Your task to perform on an android device: Open settings Image 0: 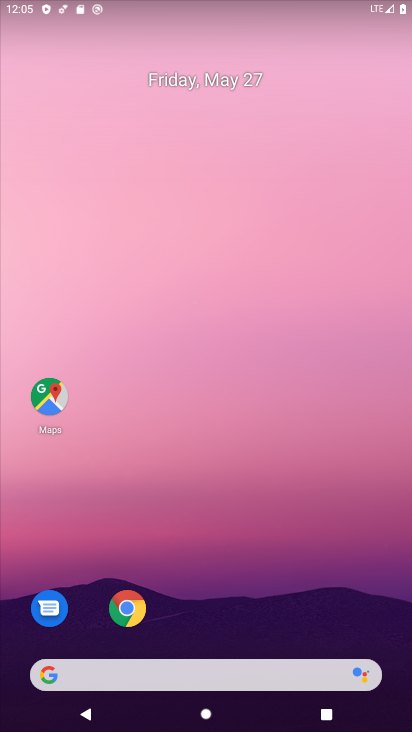
Step 0: press home button
Your task to perform on an android device: Open settings Image 1: 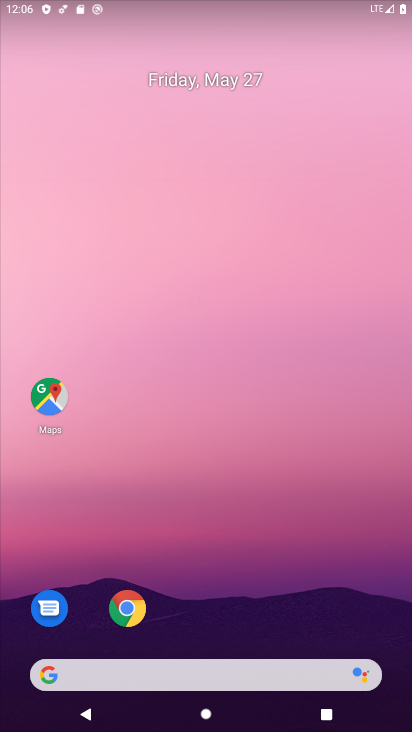
Step 1: drag from (158, 661) to (255, 160)
Your task to perform on an android device: Open settings Image 2: 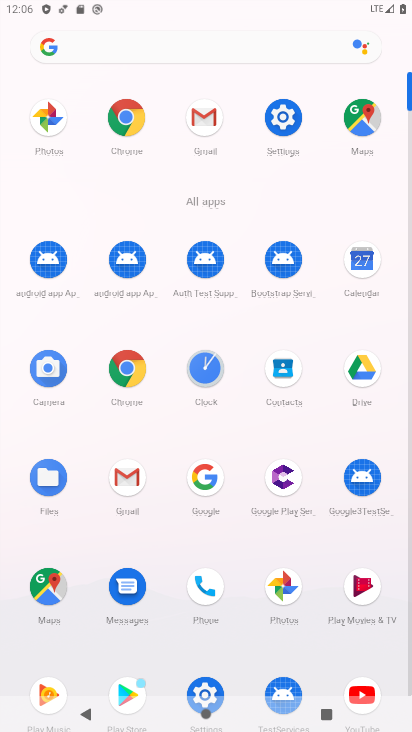
Step 2: click (277, 126)
Your task to perform on an android device: Open settings Image 3: 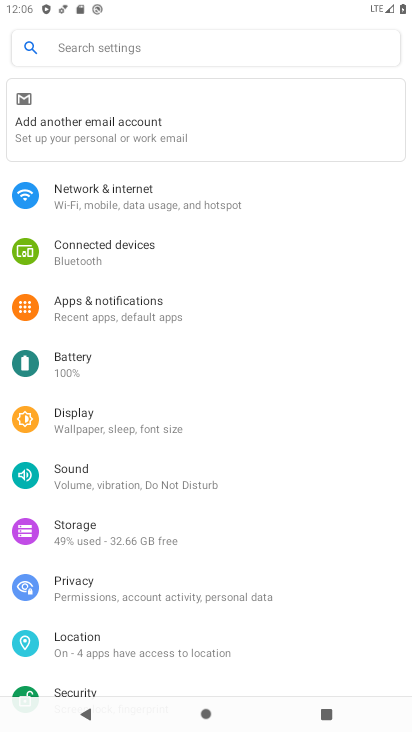
Step 3: task complete